Your task to perform on an android device: turn off data saver in the chrome app Image 0: 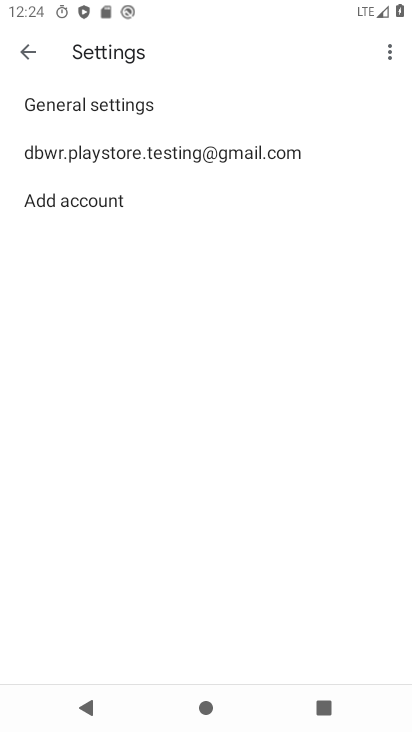
Step 0: press home button
Your task to perform on an android device: turn off data saver in the chrome app Image 1: 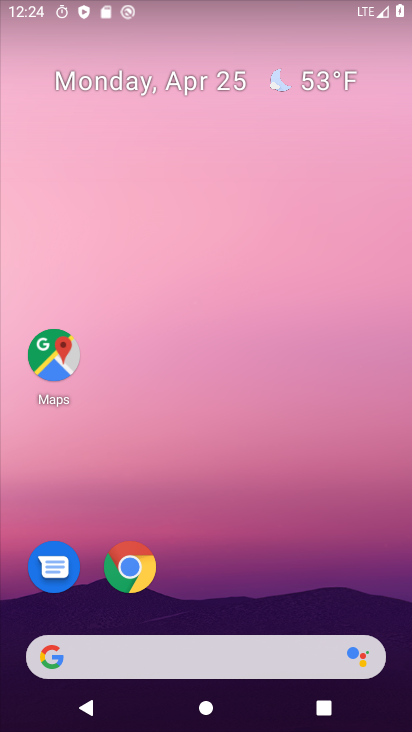
Step 1: click (140, 566)
Your task to perform on an android device: turn off data saver in the chrome app Image 2: 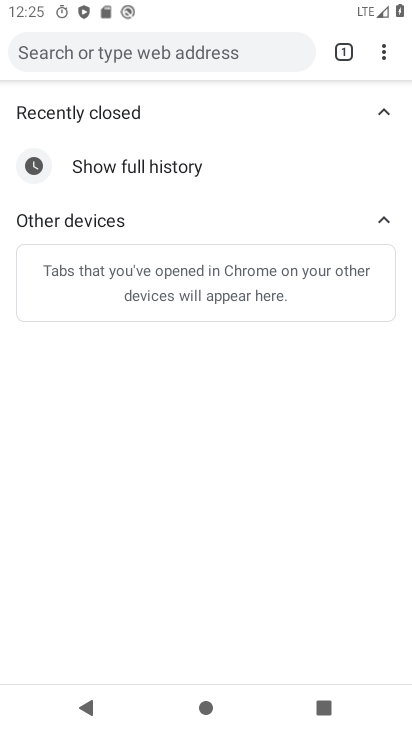
Step 2: click (383, 51)
Your task to perform on an android device: turn off data saver in the chrome app Image 3: 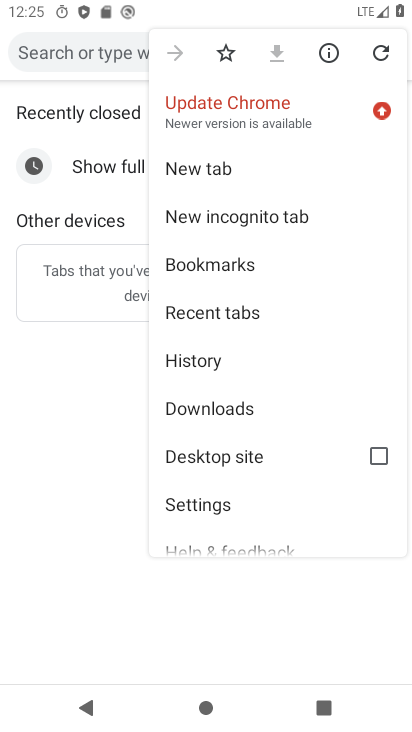
Step 3: click (250, 503)
Your task to perform on an android device: turn off data saver in the chrome app Image 4: 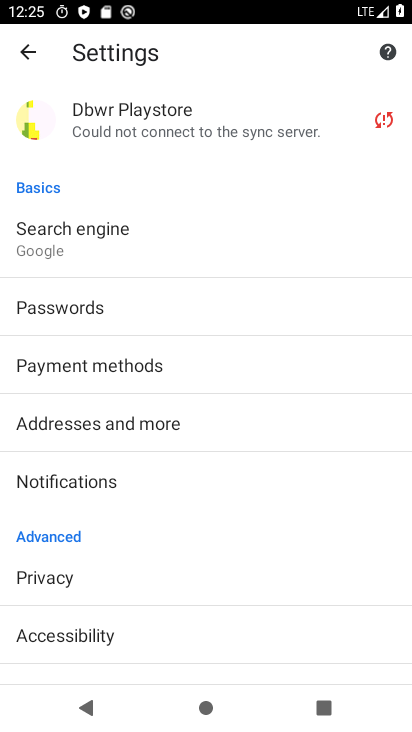
Step 4: drag from (250, 501) to (282, 163)
Your task to perform on an android device: turn off data saver in the chrome app Image 5: 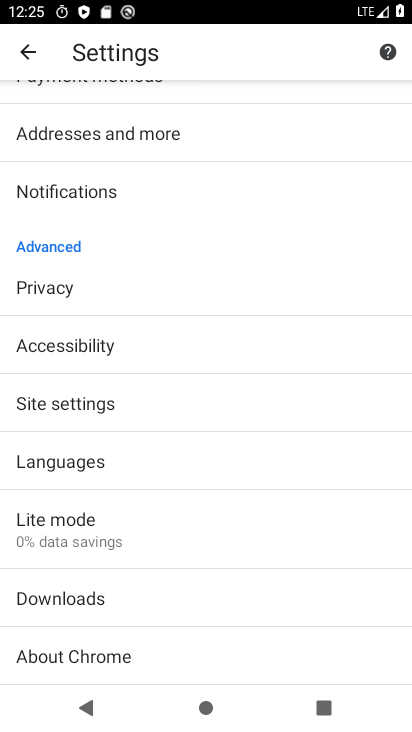
Step 5: click (165, 534)
Your task to perform on an android device: turn off data saver in the chrome app Image 6: 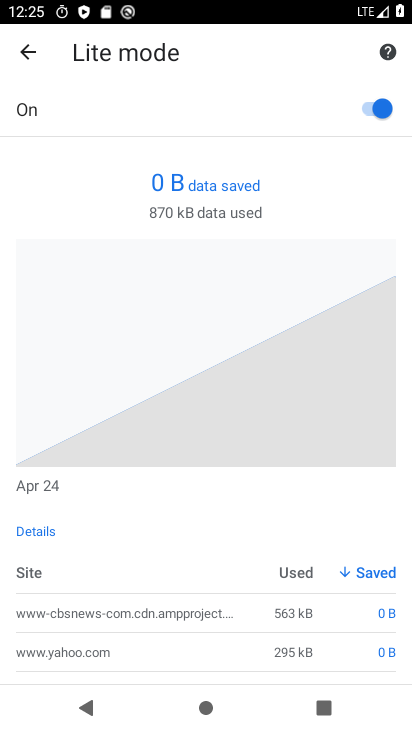
Step 6: click (375, 104)
Your task to perform on an android device: turn off data saver in the chrome app Image 7: 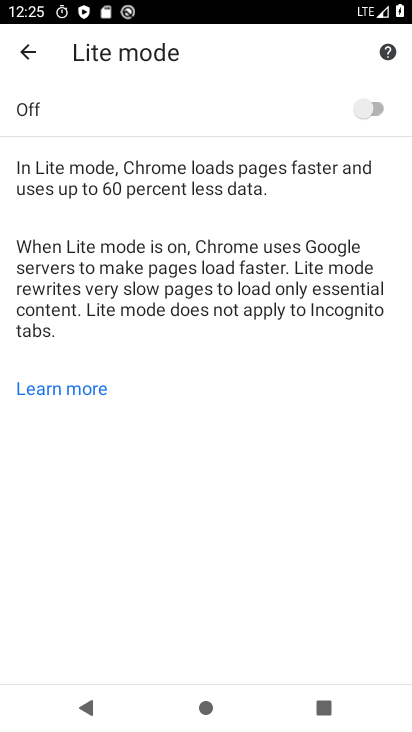
Step 7: task complete